Your task to perform on an android device: turn off sleep mode Image 0: 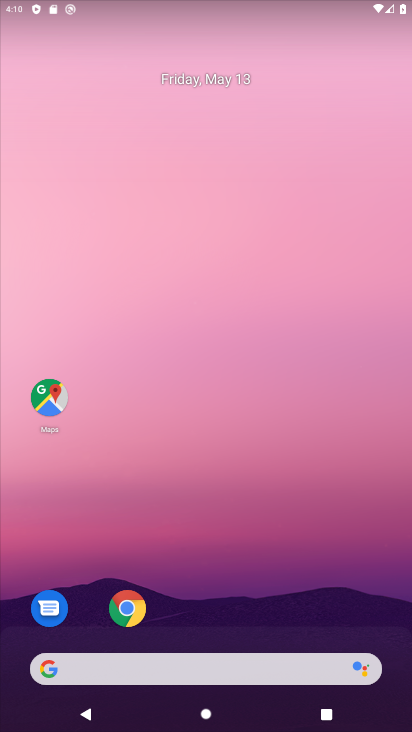
Step 0: drag from (181, 611) to (297, 156)
Your task to perform on an android device: turn off sleep mode Image 1: 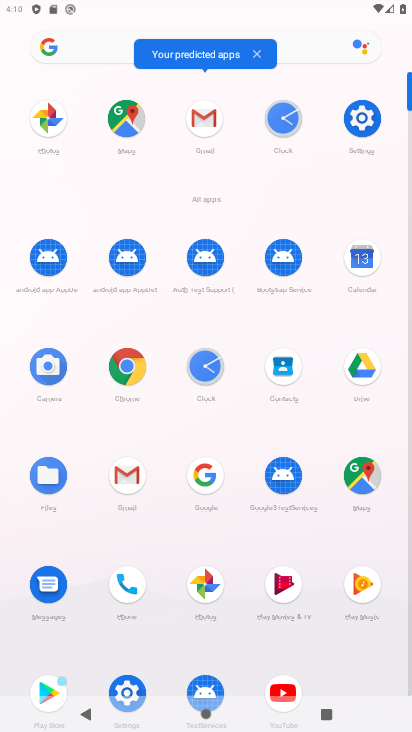
Step 1: drag from (132, 660) to (190, 456)
Your task to perform on an android device: turn off sleep mode Image 2: 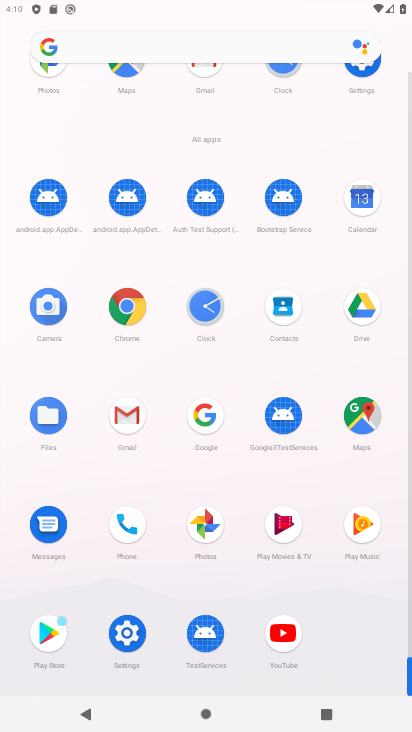
Step 2: click (134, 639)
Your task to perform on an android device: turn off sleep mode Image 3: 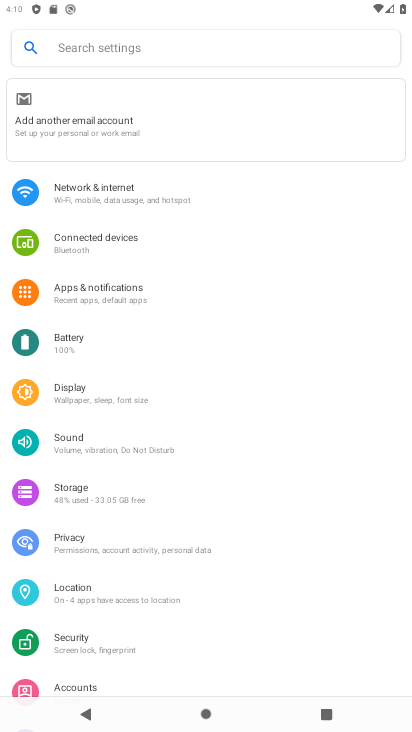
Step 3: click (88, 397)
Your task to perform on an android device: turn off sleep mode Image 4: 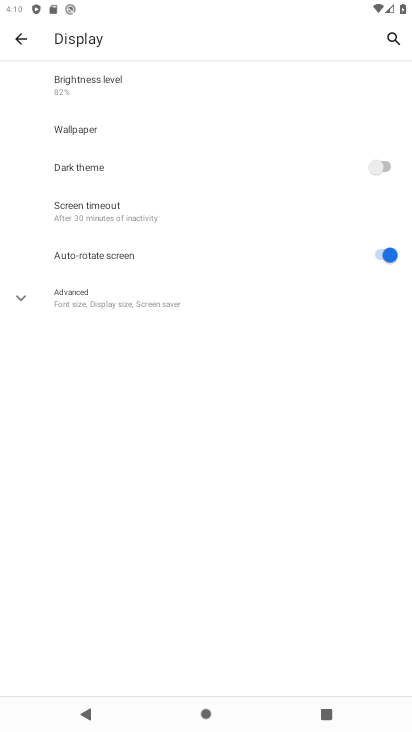
Step 4: click (123, 312)
Your task to perform on an android device: turn off sleep mode Image 5: 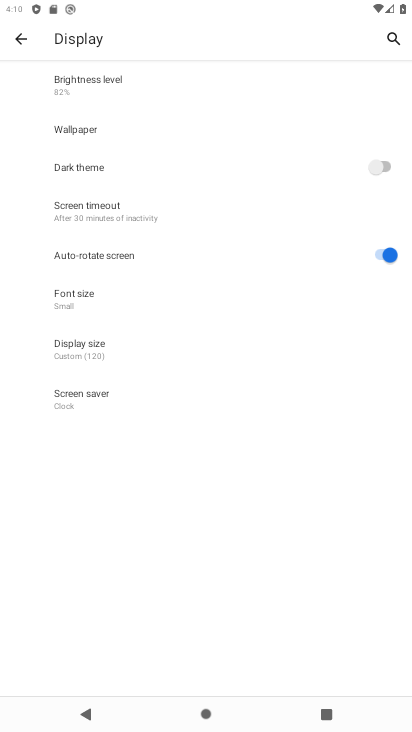
Step 5: task complete